Your task to perform on an android device: turn off translation in the chrome app Image 0: 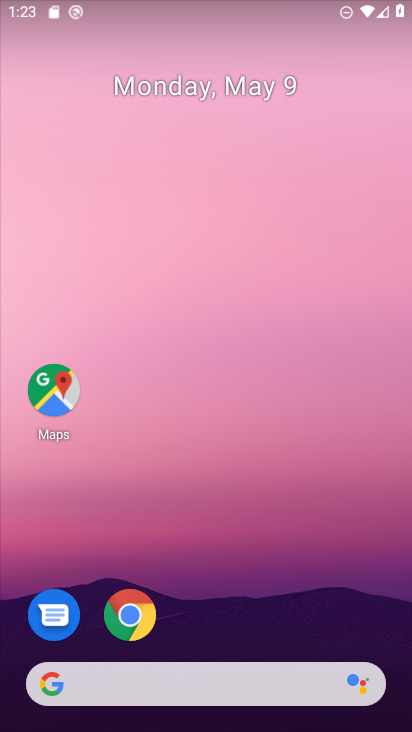
Step 0: click (125, 613)
Your task to perform on an android device: turn off translation in the chrome app Image 1: 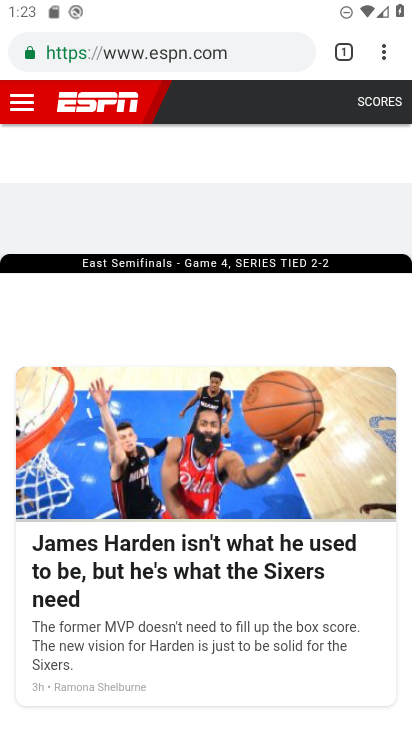
Step 1: click (385, 51)
Your task to perform on an android device: turn off translation in the chrome app Image 2: 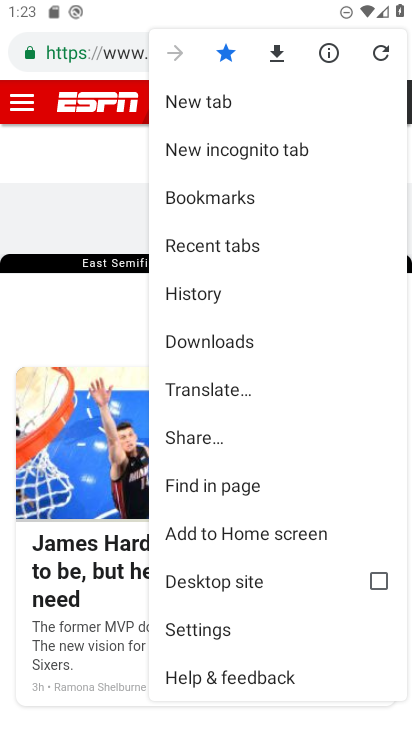
Step 2: click (185, 624)
Your task to perform on an android device: turn off translation in the chrome app Image 3: 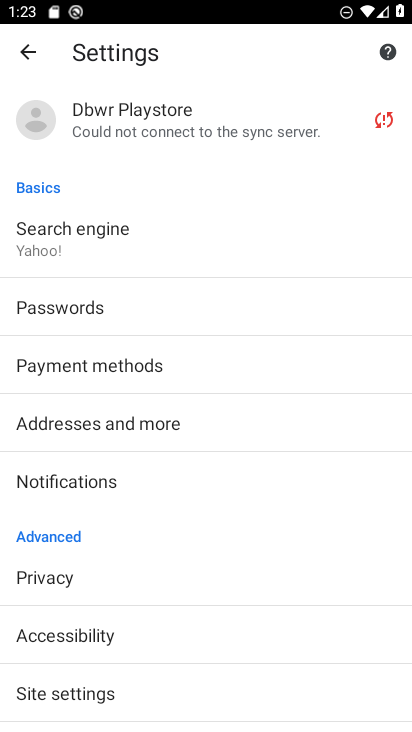
Step 3: drag from (104, 567) to (169, 432)
Your task to perform on an android device: turn off translation in the chrome app Image 4: 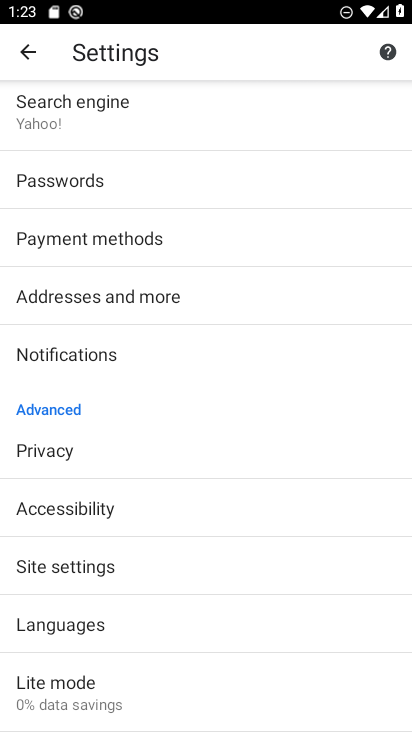
Step 4: drag from (148, 611) to (193, 520)
Your task to perform on an android device: turn off translation in the chrome app Image 5: 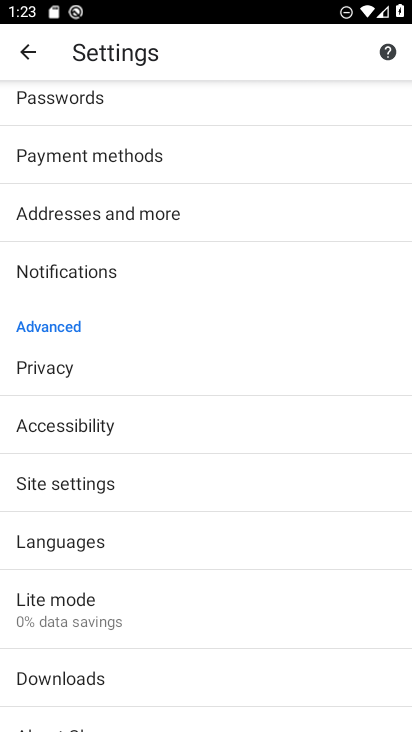
Step 5: click (95, 532)
Your task to perform on an android device: turn off translation in the chrome app Image 6: 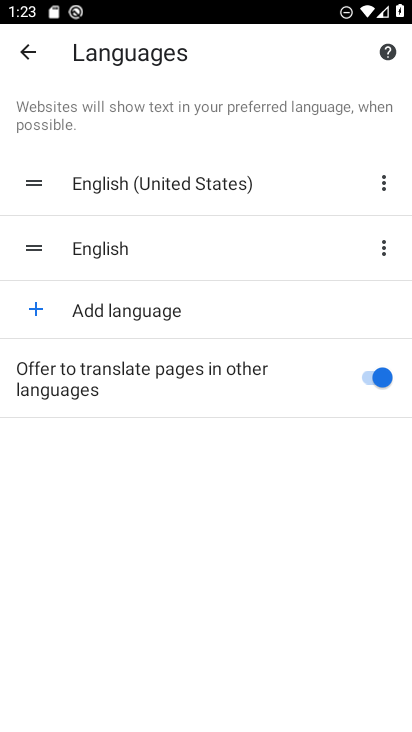
Step 6: click (386, 377)
Your task to perform on an android device: turn off translation in the chrome app Image 7: 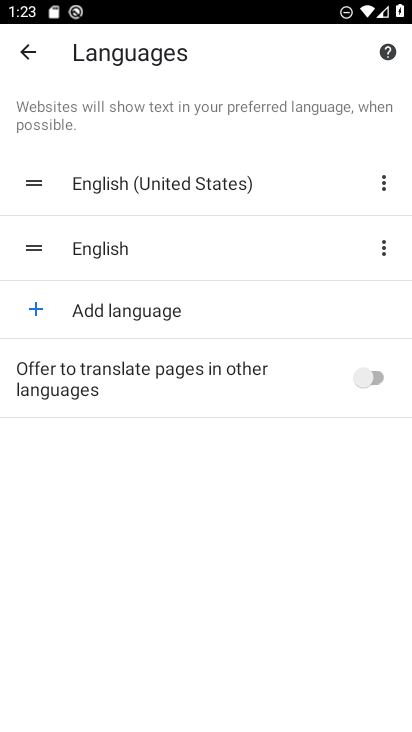
Step 7: task complete